Your task to perform on an android device: Open sound settings Image 0: 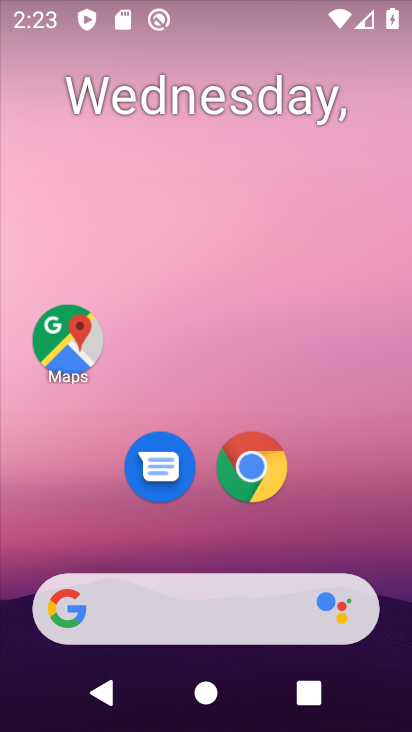
Step 0: drag from (323, 410) to (358, 174)
Your task to perform on an android device: Open sound settings Image 1: 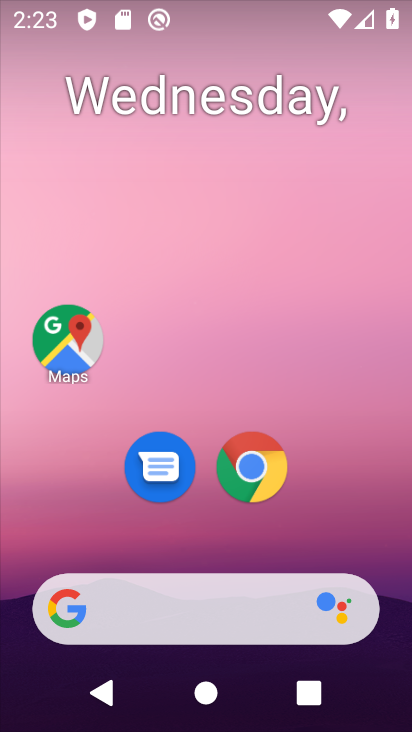
Step 1: drag from (285, 507) to (336, 123)
Your task to perform on an android device: Open sound settings Image 2: 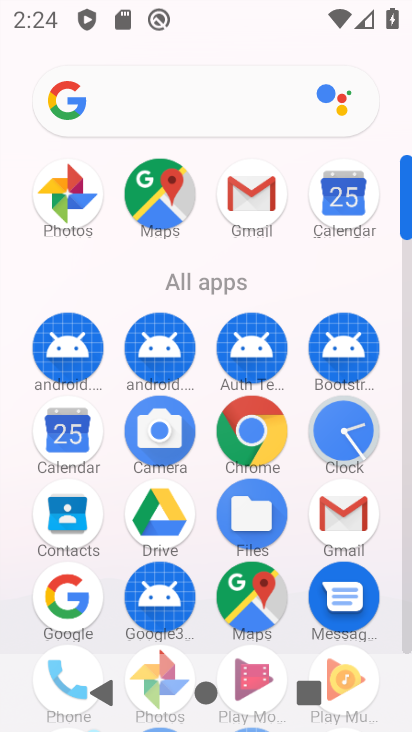
Step 2: drag from (296, 559) to (320, 272)
Your task to perform on an android device: Open sound settings Image 3: 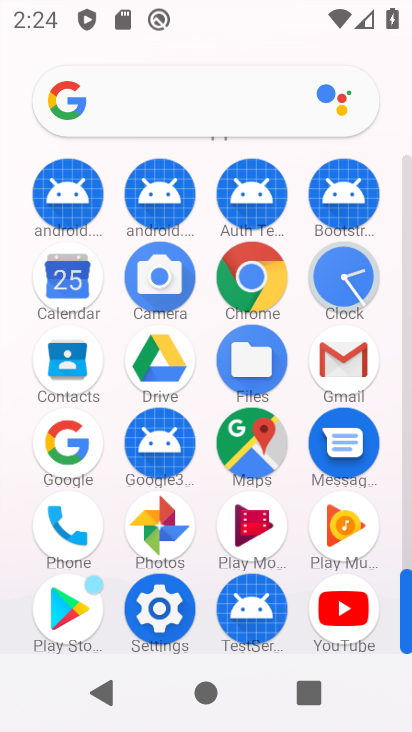
Step 3: click (178, 604)
Your task to perform on an android device: Open sound settings Image 4: 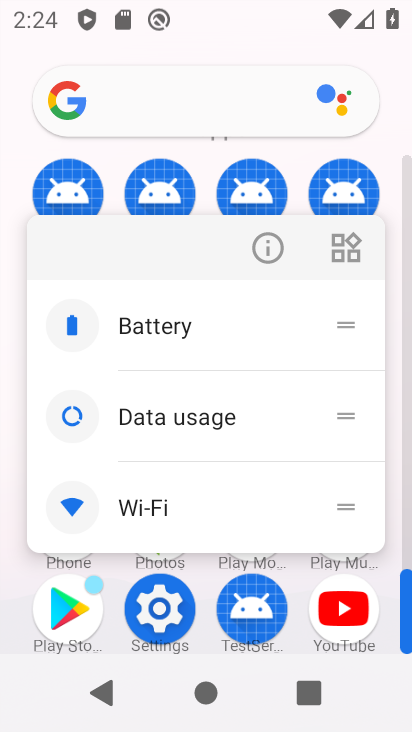
Step 4: click (141, 610)
Your task to perform on an android device: Open sound settings Image 5: 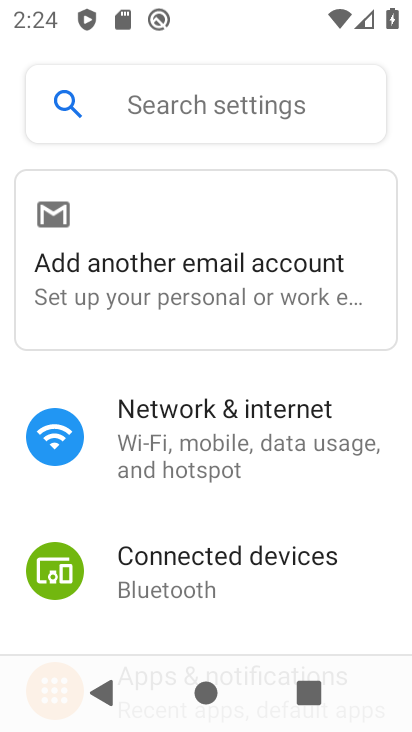
Step 5: drag from (180, 559) to (246, 240)
Your task to perform on an android device: Open sound settings Image 6: 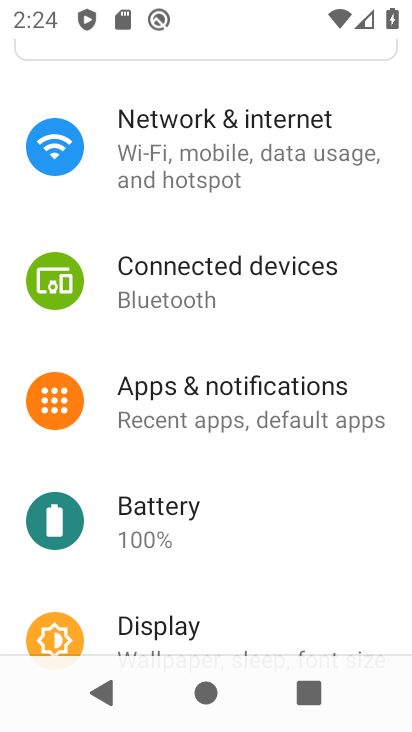
Step 6: drag from (206, 563) to (248, 301)
Your task to perform on an android device: Open sound settings Image 7: 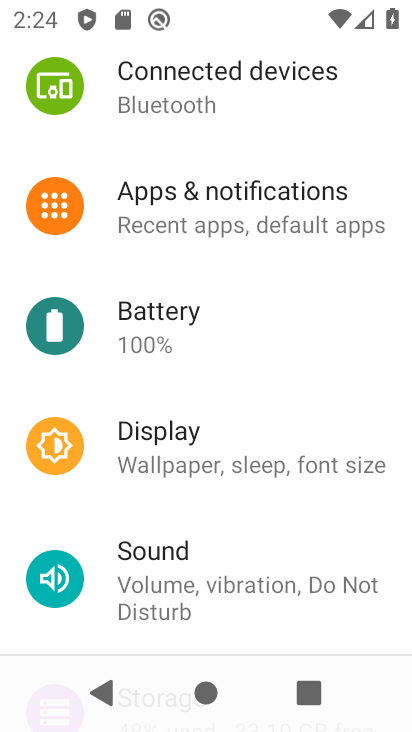
Step 7: click (201, 563)
Your task to perform on an android device: Open sound settings Image 8: 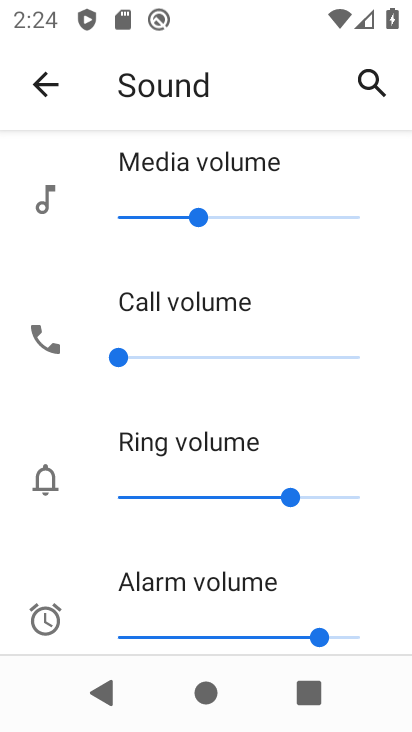
Step 8: task complete